Your task to perform on an android device: change the clock display to show seconds Image 0: 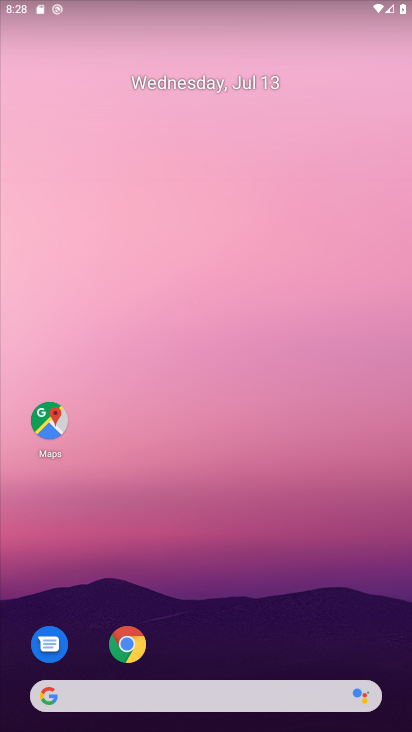
Step 0: drag from (271, 599) to (274, 254)
Your task to perform on an android device: change the clock display to show seconds Image 1: 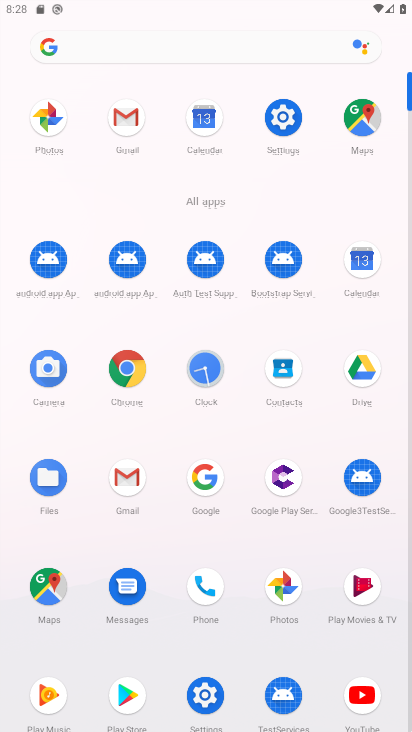
Step 1: click (192, 381)
Your task to perform on an android device: change the clock display to show seconds Image 2: 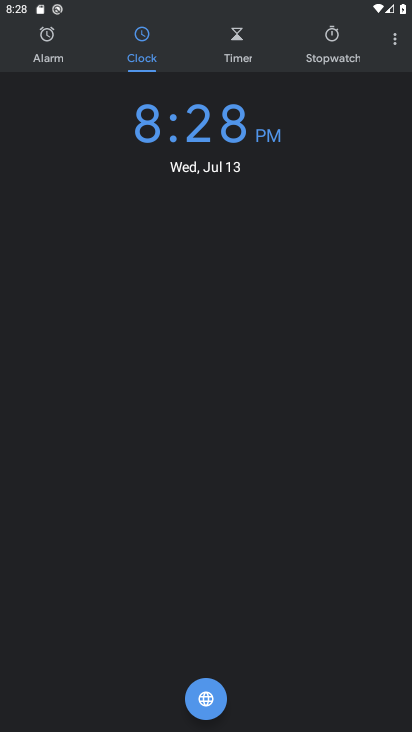
Step 2: click (394, 39)
Your task to perform on an android device: change the clock display to show seconds Image 3: 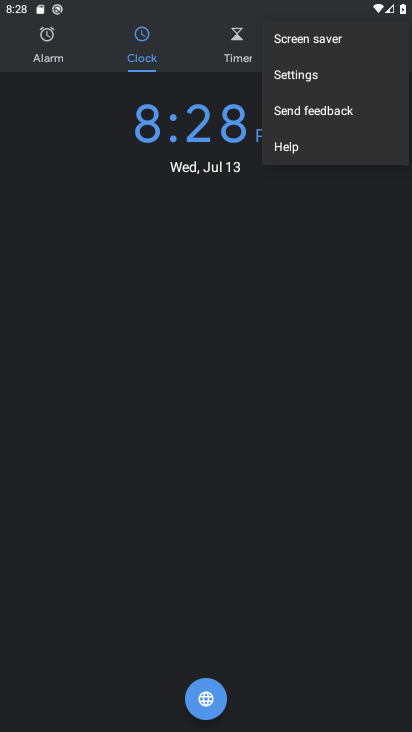
Step 3: click (323, 83)
Your task to perform on an android device: change the clock display to show seconds Image 4: 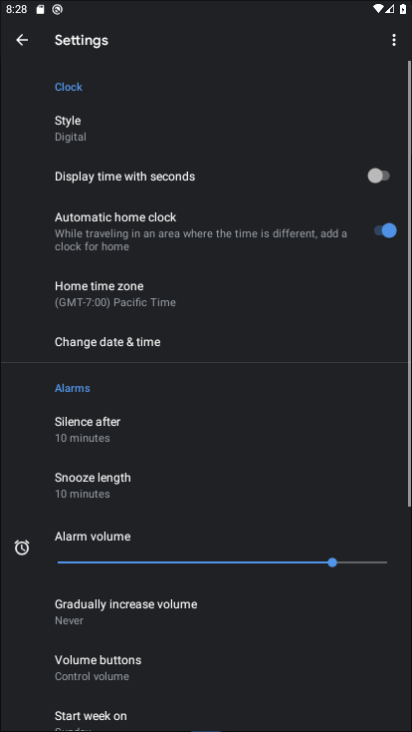
Step 4: click (323, 83)
Your task to perform on an android device: change the clock display to show seconds Image 5: 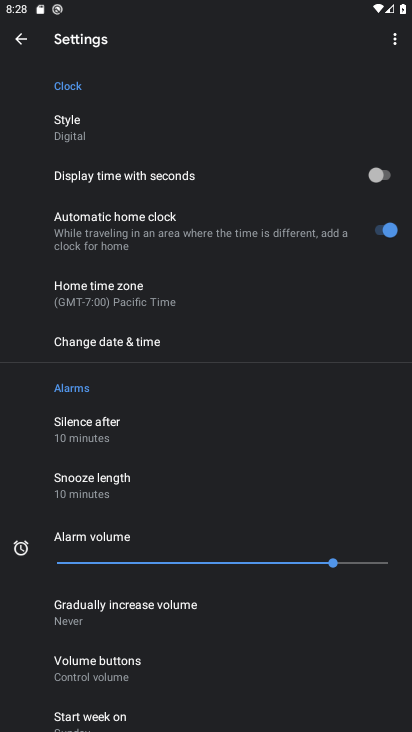
Step 5: click (382, 164)
Your task to perform on an android device: change the clock display to show seconds Image 6: 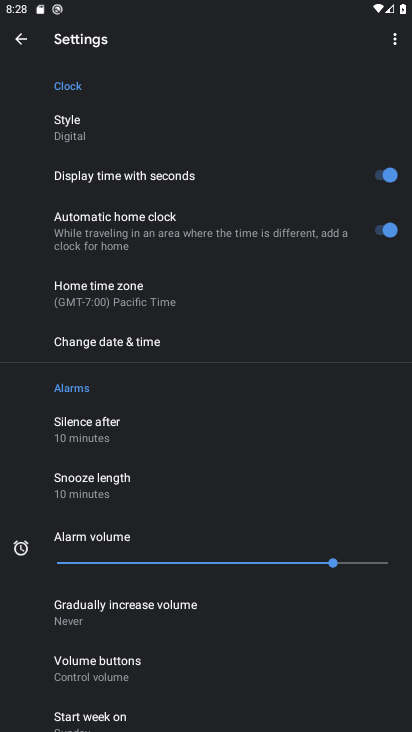
Step 6: task complete